Your task to perform on an android device: Turn on the flashlight Image 0: 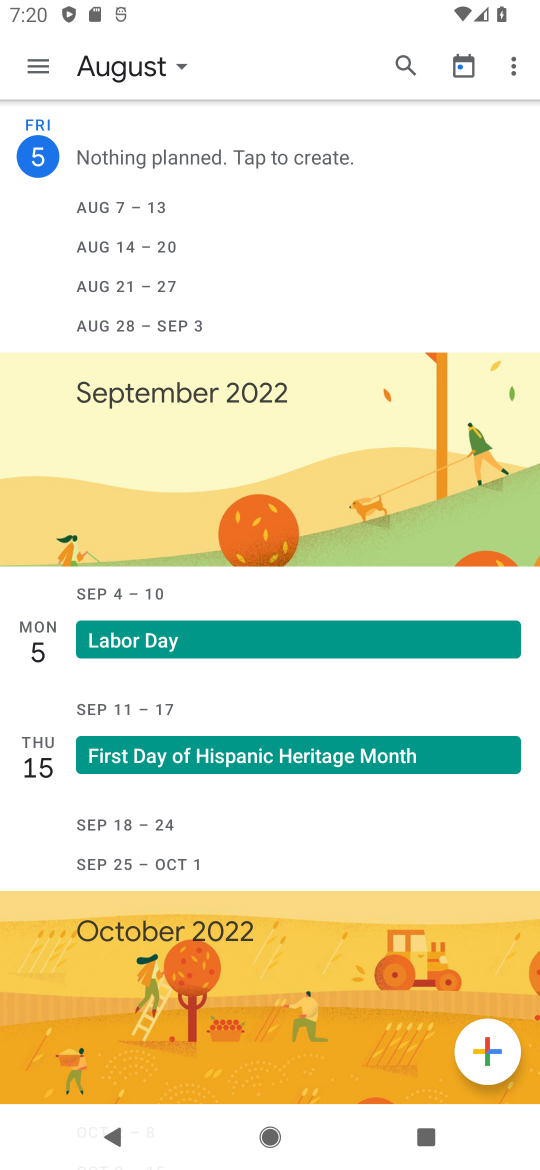
Step 0: press home button
Your task to perform on an android device: Turn on the flashlight Image 1: 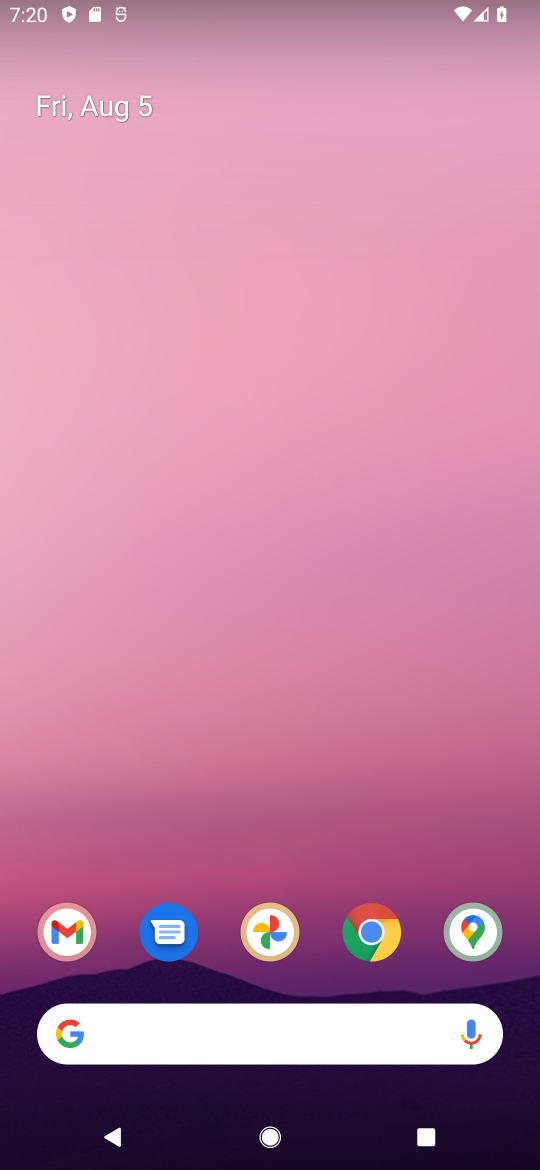
Step 1: drag from (381, 773) to (384, 38)
Your task to perform on an android device: Turn on the flashlight Image 2: 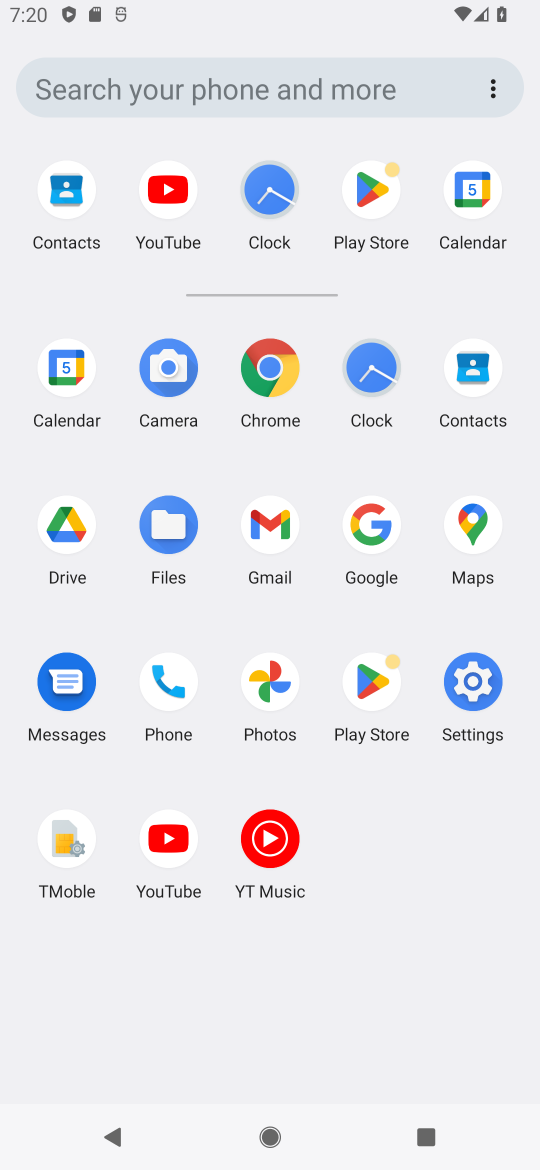
Step 2: click (465, 671)
Your task to perform on an android device: Turn on the flashlight Image 3: 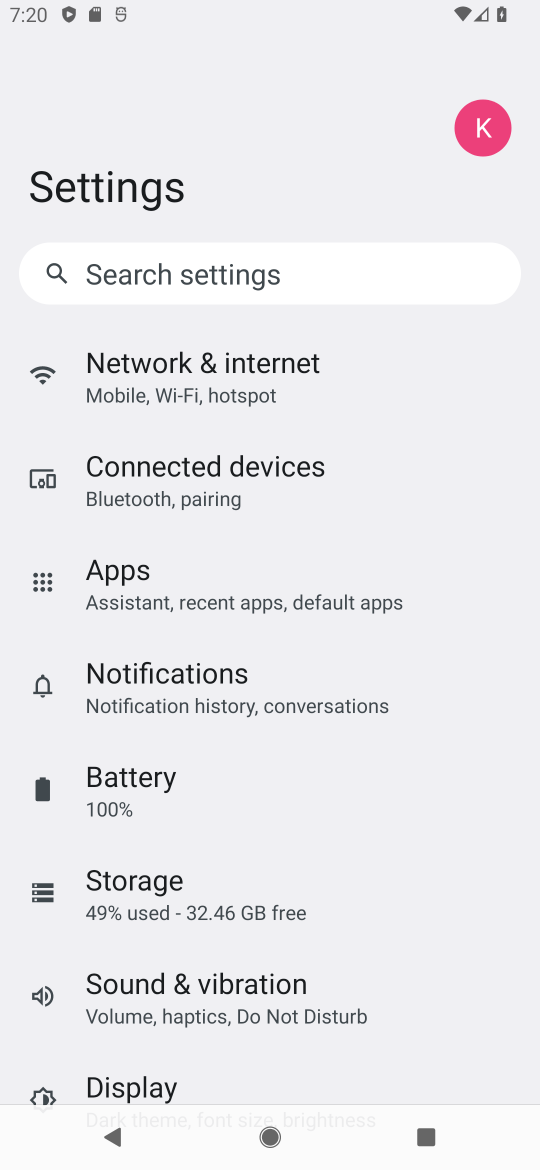
Step 3: click (138, 1087)
Your task to perform on an android device: Turn on the flashlight Image 4: 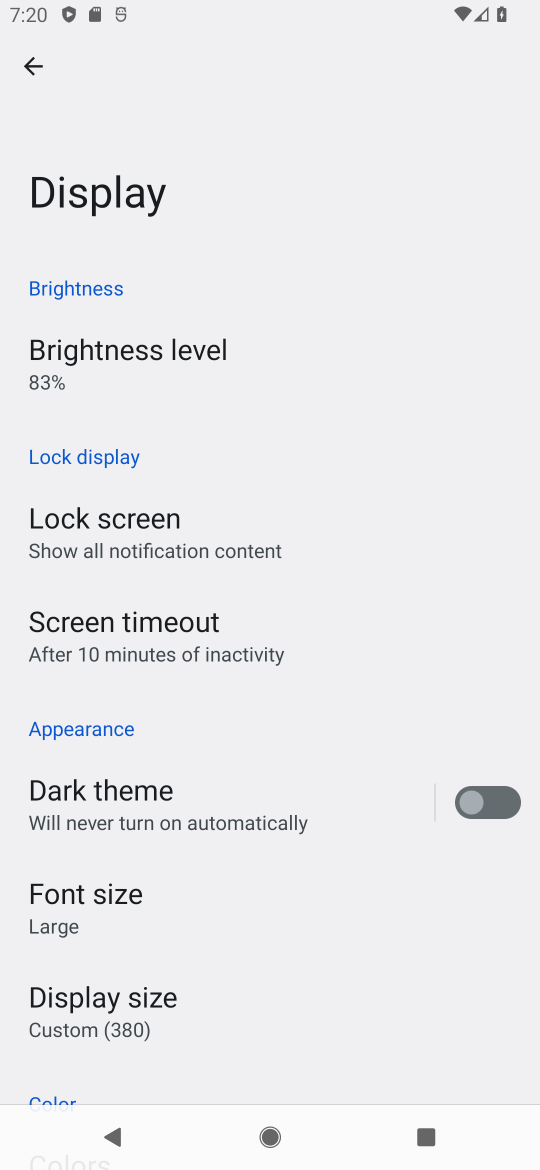
Step 4: click (151, 332)
Your task to perform on an android device: Turn on the flashlight Image 5: 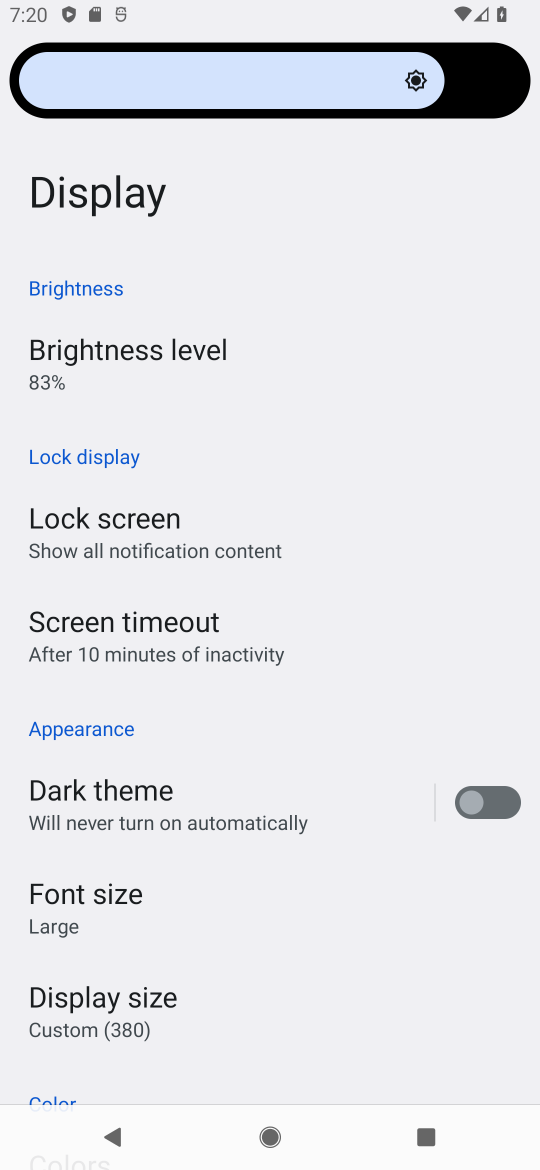
Step 5: task complete